Your task to perform on an android device: Open Google Chrome and open the bookmarks view Image 0: 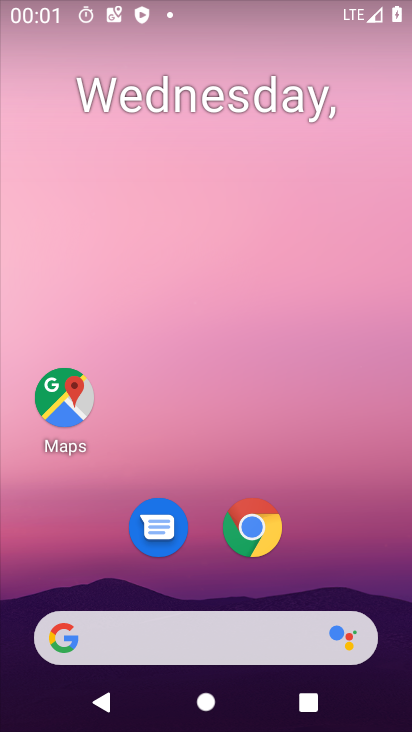
Step 0: drag from (195, 598) to (230, 257)
Your task to perform on an android device: Open Google Chrome and open the bookmarks view Image 1: 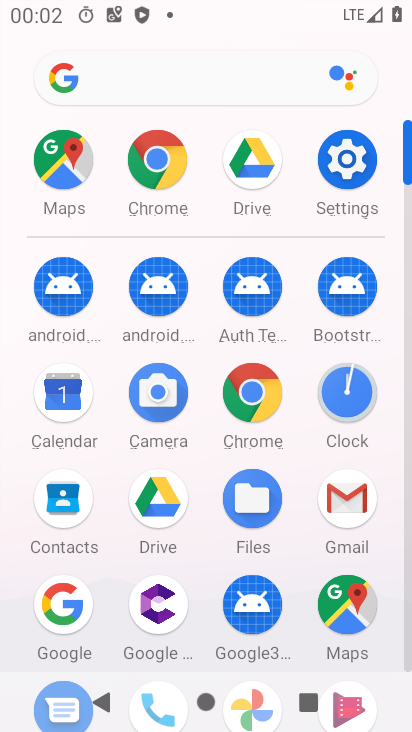
Step 1: click (252, 387)
Your task to perform on an android device: Open Google Chrome and open the bookmarks view Image 2: 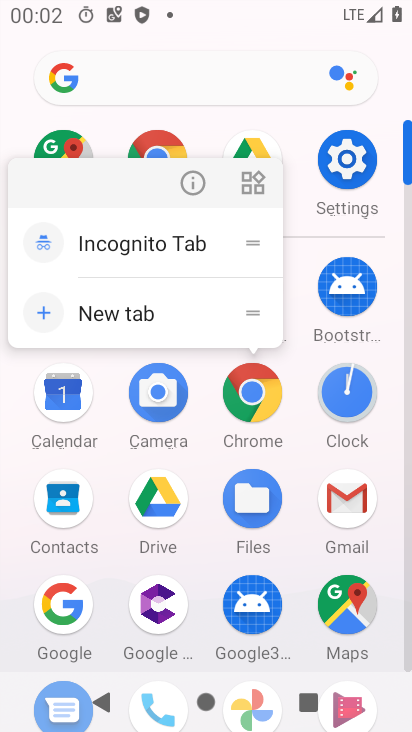
Step 2: click (199, 187)
Your task to perform on an android device: Open Google Chrome and open the bookmarks view Image 3: 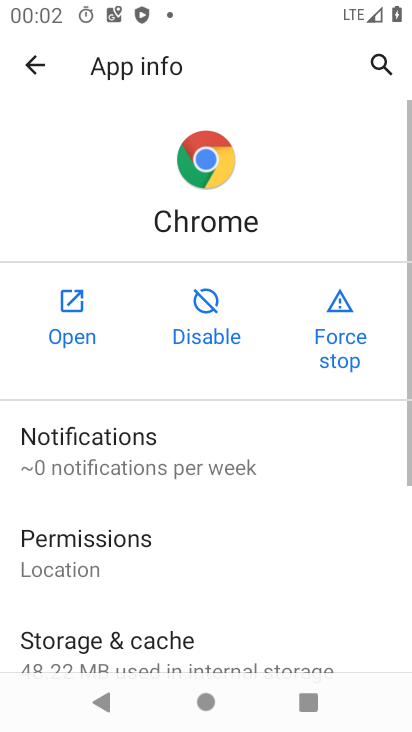
Step 3: click (58, 326)
Your task to perform on an android device: Open Google Chrome and open the bookmarks view Image 4: 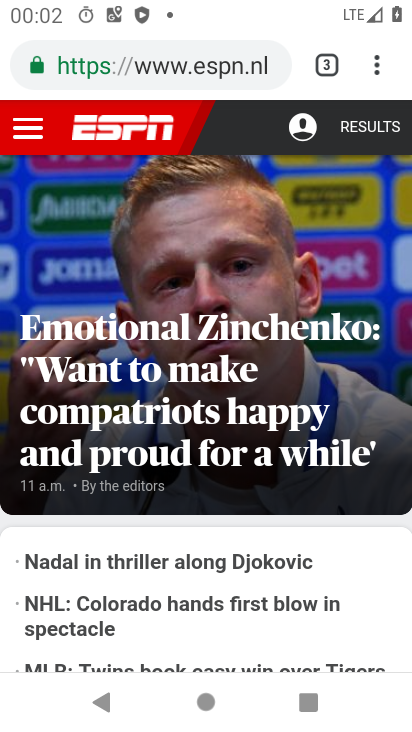
Step 4: drag from (373, 64) to (170, 580)
Your task to perform on an android device: Open Google Chrome and open the bookmarks view Image 5: 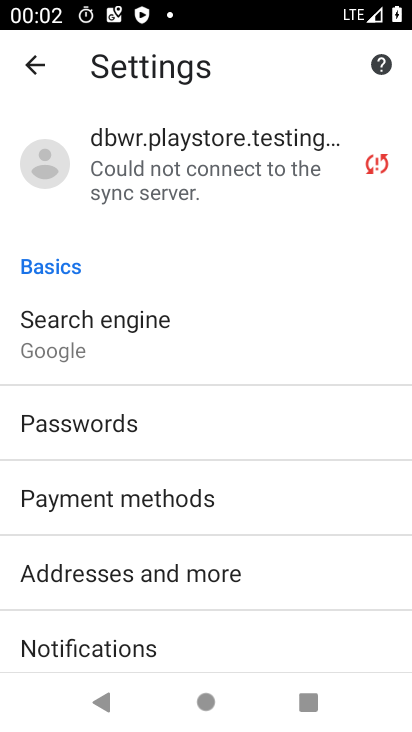
Step 5: drag from (254, 646) to (410, 71)
Your task to perform on an android device: Open Google Chrome and open the bookmarks view Image 6: 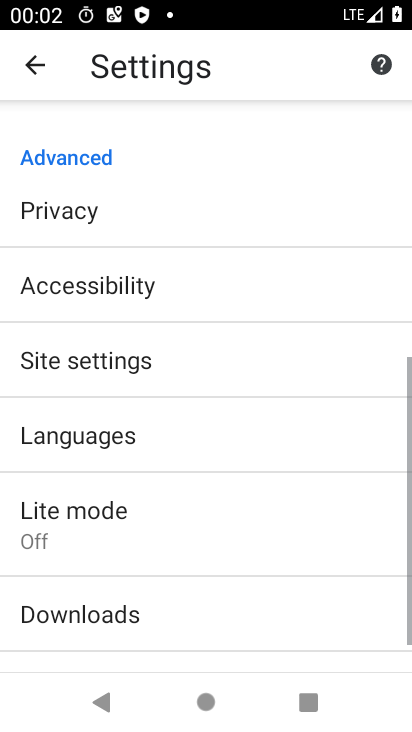
Step 6: drag from (124, 658) to (161, 402)
Your task to perform on an android device: Open Google Chrome and open the bookmarks view Image 7: 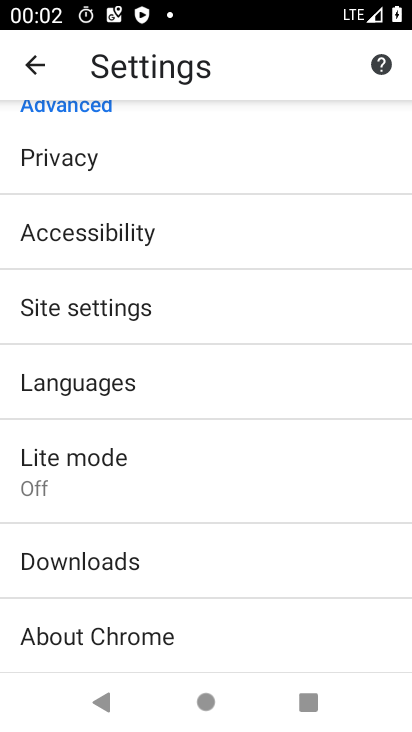
Step 7: click (151, 317)
Your task to perform on an android device: Open Google Chrome and open the bookmarks view Image 8: 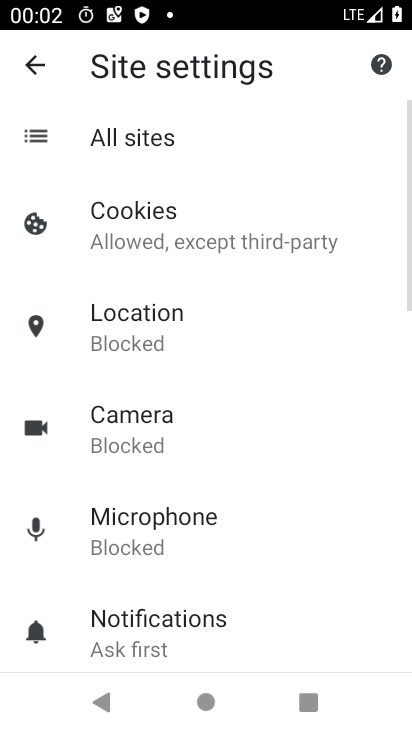
Step 8: drag from (237, 557) to (287, 310)
Your task to perform on an android device: Open Google Chrome and open the bookmarks view Image 9: 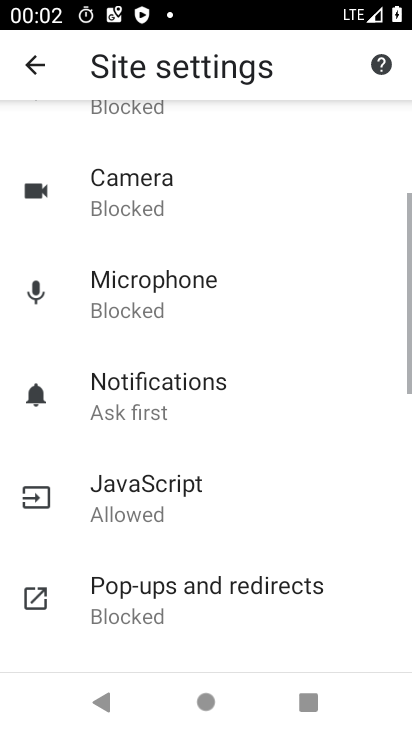
Step 9: drag from (257, 413) to (254, 707)
Your task to perform on an android device: Open Google Chrome and open the bookmarks view Image 10: 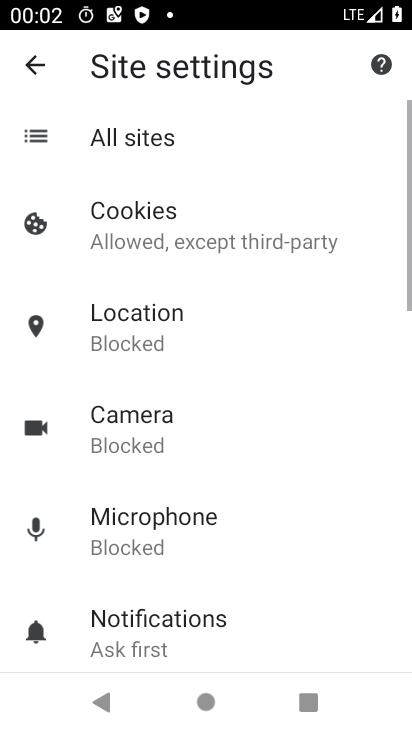
Step 10: click (26, 68)
Your task to perform on an android device: Open Google Chrome and open the bookmarks view Image 11: 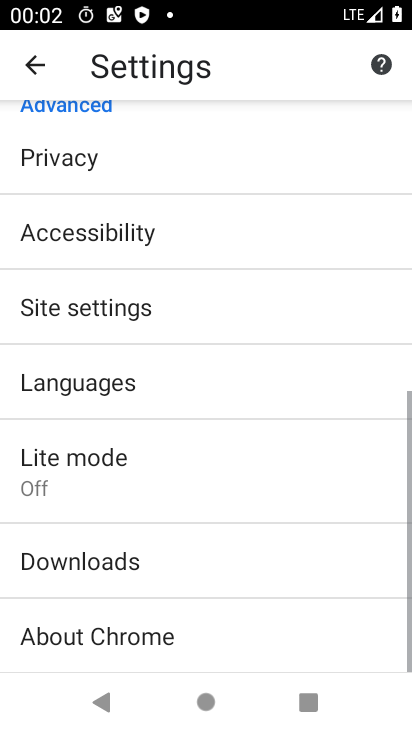
Step 11: click (26, 62)
Your task to perform on an android device: Open Google Chrome and open the bookmarks view Image 12: 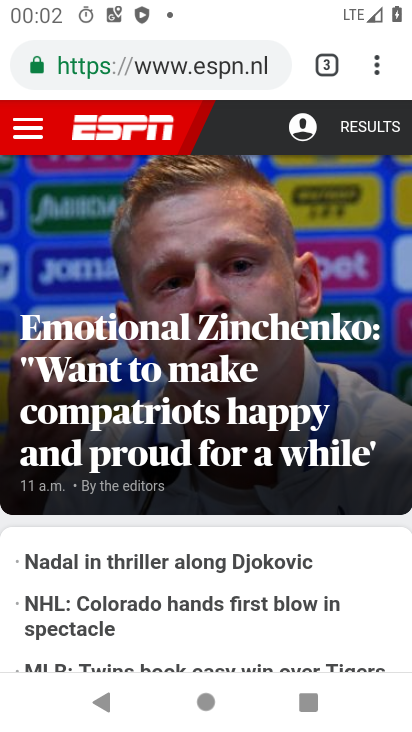
Step 12: drag from (380, 61) to (192, 590)
Your task to perform on an android device: Open Google Chrome and open the bookmarks view Image 13: 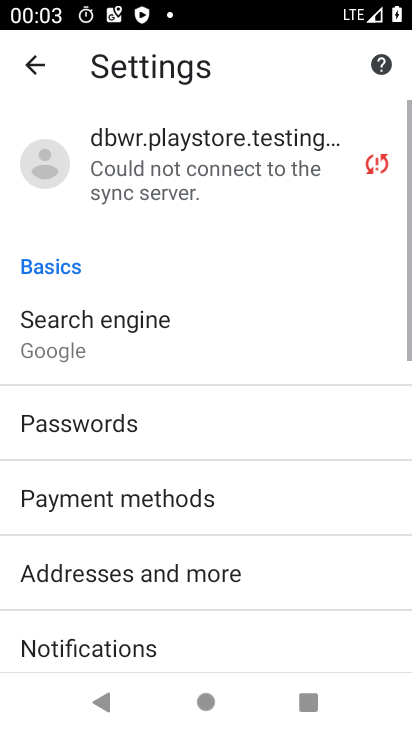
Step 13: drag from (235, 498) to (258, 291)
Your task to perform on an android device: Open Google Chrome and open the bookmarks view Image 14: 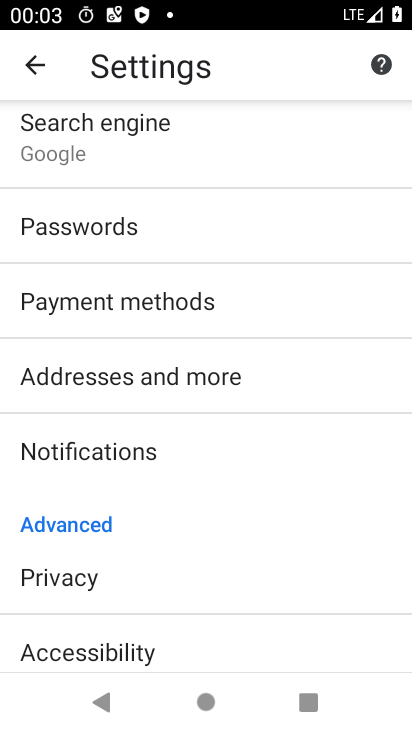
Step 14: drag from (141, 624) to (189, 368)
Your task to perform on an android device: Open Google Chrome and open the bookmarks view Image 15: 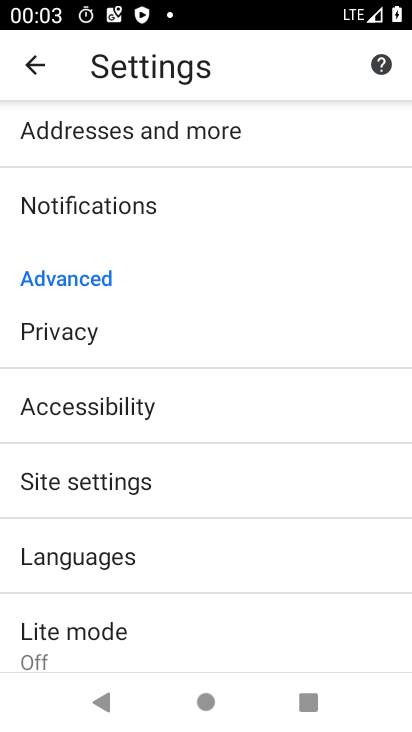
Step 15: drag from (157, 612) to (183, 374)
Your task to perform on an android device: Open Google Chrome and open the bookmarks view Image 16: 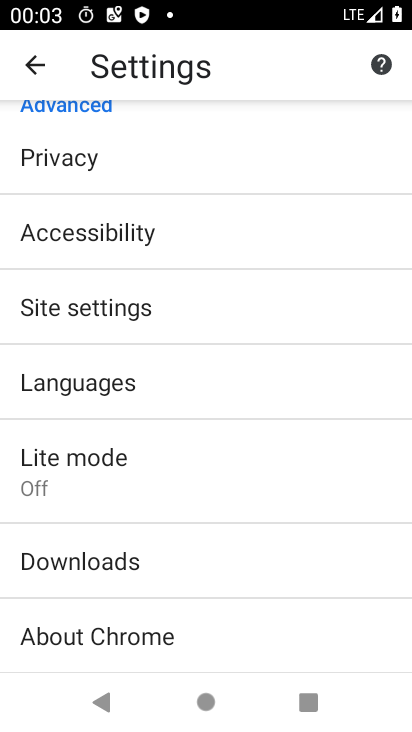
Step 16: click (3, 81)
Your task to perform on an android device: Open Google Chrome and open the bookmarks view Image 17: 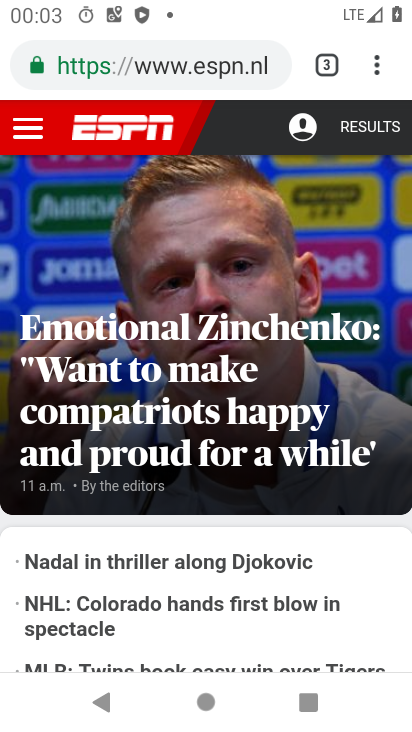
Step 17: task complete